Your task to perform on an android device: change the clock display to show seconds Image 0: 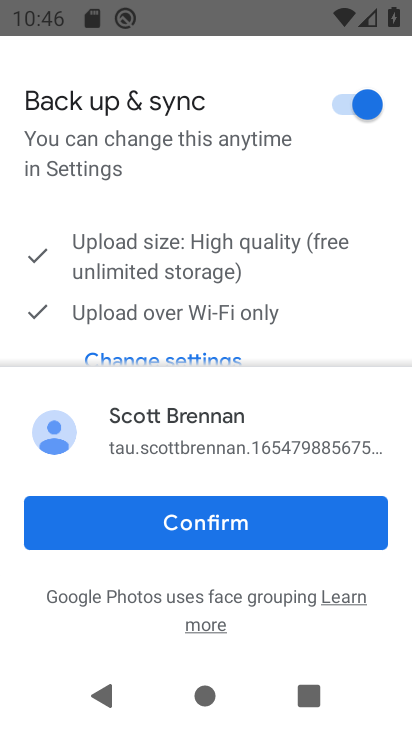
Step 0: click (204, 504)
Your task to perform on an android device: change the clock display to show seconds Image 1: 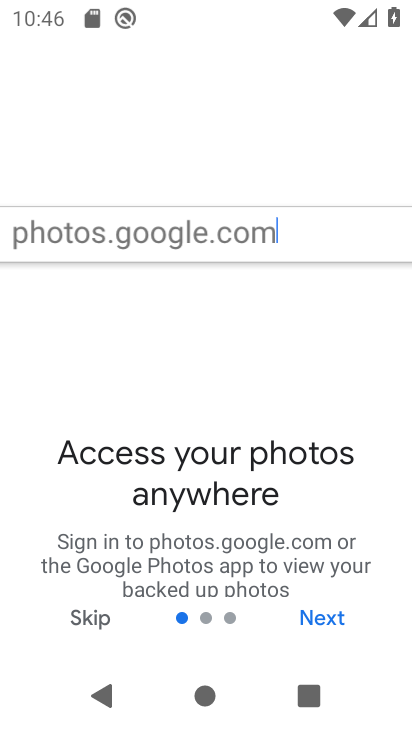
Step 1: press back button
Your task to perform on an android device: change the clock display to show seconds Image 2: 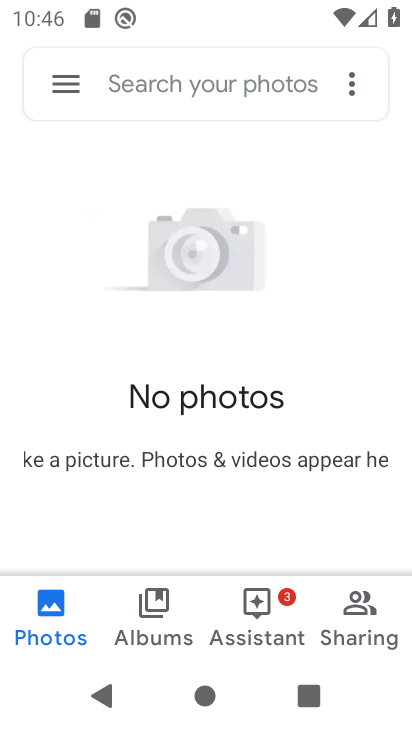
Step 2: press back button
Your task to perform on an android device: change the clock display to show seconds Image 3: 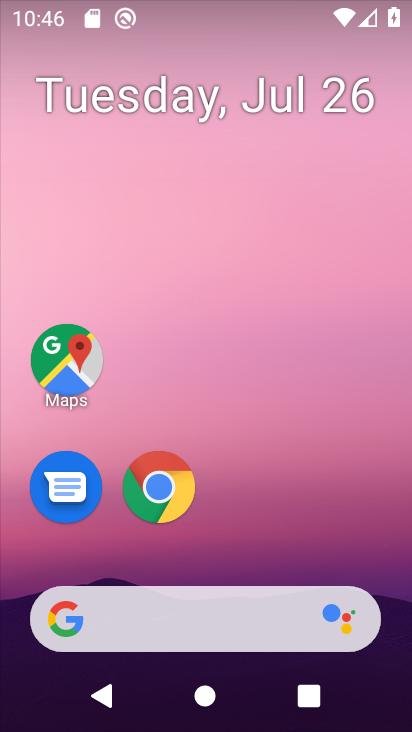
Step 3: drag from (267, 577) to (354, 16)
Your task to perform on an android device: change the clock display to show seconds Image 4: 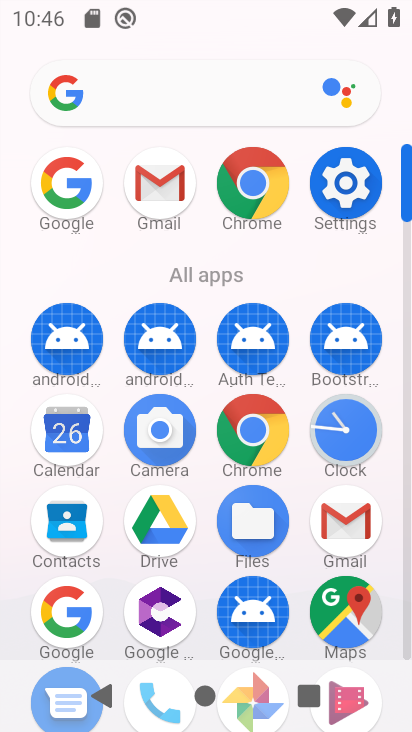
Step 4: click (362, 427)
Your task to perform on an android device: change the clock display to show seconds Image 5: 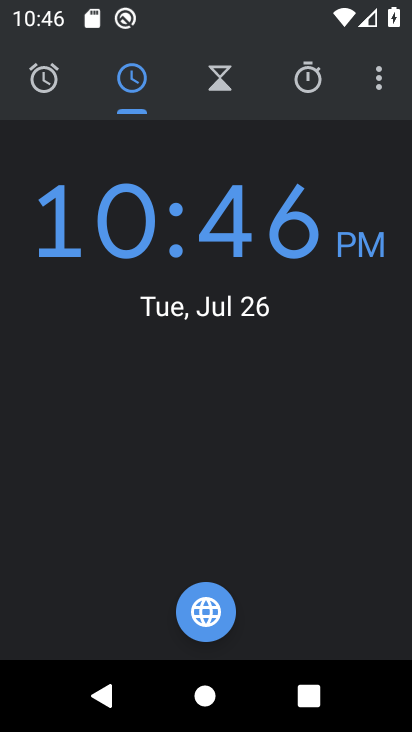
Step 5: click (384, 77)
Your task to perform on an android device: change the clock display to show seconds Image 6: 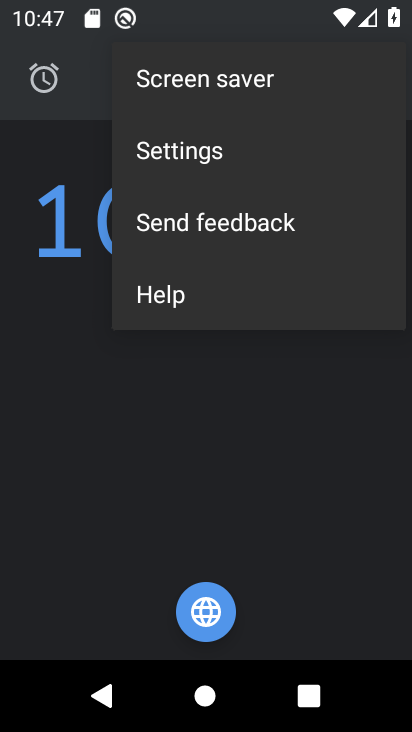
Step 6: press back button
Your task to perform on an android device: change the clock display to show seconds Image 7: 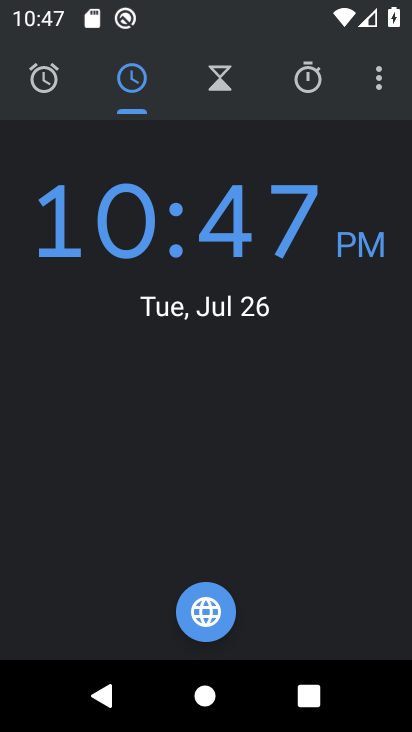
Step 7: click (375, 79)
Your task to perform on an android device: change the clock display to show seconds Image 8: 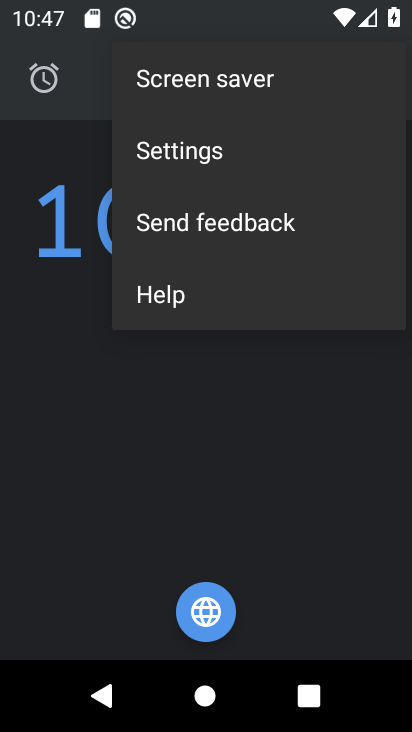
Step 8: click (154, 158)
Your task to perform on an android device: change the clock display to show seconds Image 9: 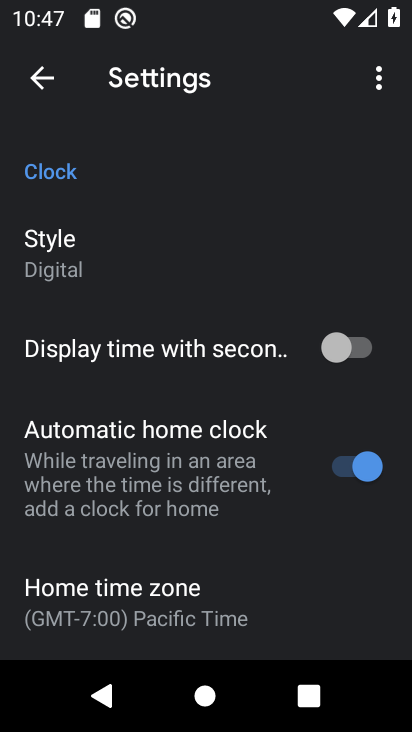
Step 9: click (341, 355)
Your task to perform on an android device: change the clock display to show seconds Image 10: 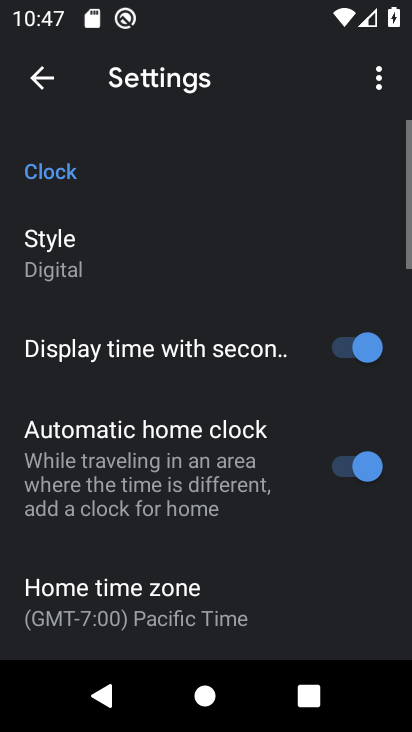
Step 10: task complete